Your task to perform on an android device: Open Yahoo.com Image 0: 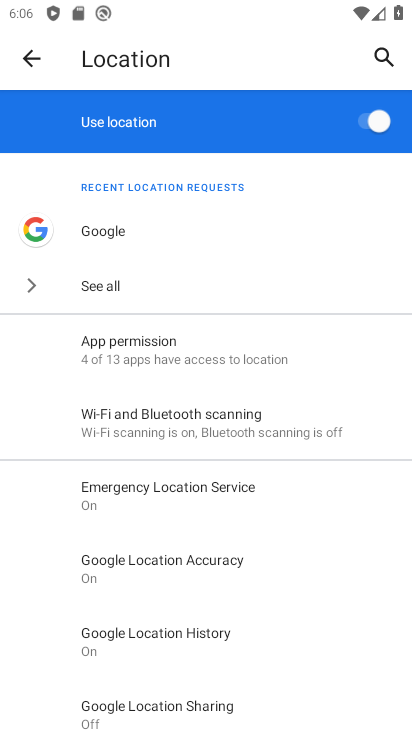
Step 0: press home button
Your task to perform on an android device: Open Yahoo.com Image 1: 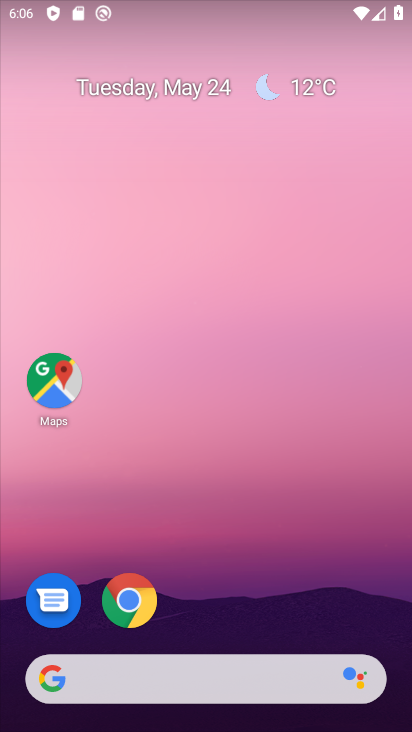
Step 1: drag from (142, 660) to (161, 1)
Your task to perform on an android device: Open Yahoo.com Image 2: 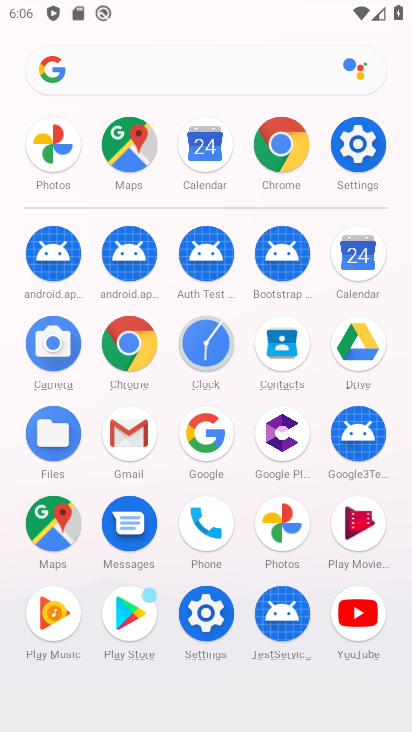
Step 2: click (140, 337)
Your task to perform on an android device: Open Yahoo.com Image 3: 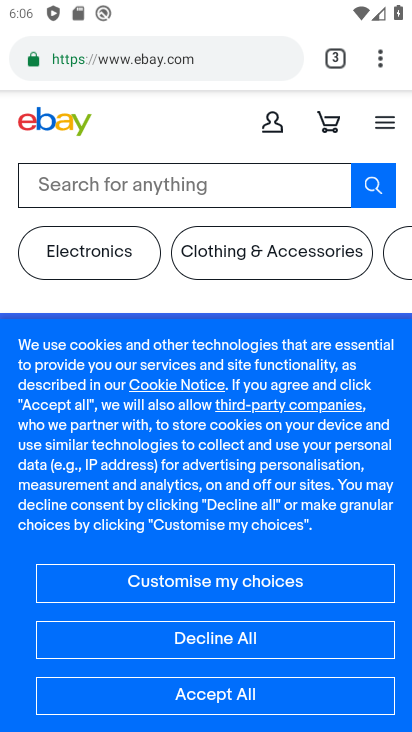
Step 3: drag from (371, 58) to (187, 111)
Your task to perform on an android device: Open Yahoo.com Image 4: 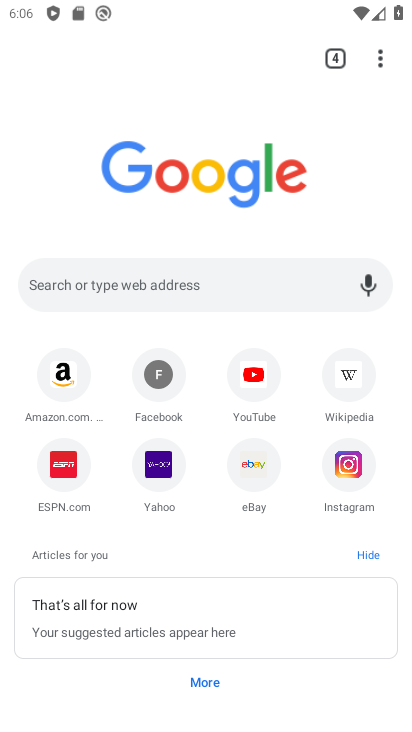
Step 4: click (166, 463)
Your task to perform on an android device: Open Yahoo.com Image 5: 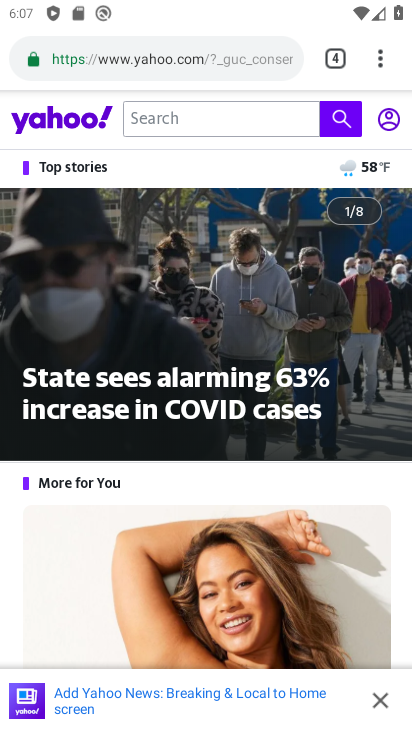
Step 5: task complete